Your task to perform on an android device: check out phone information Image 0: 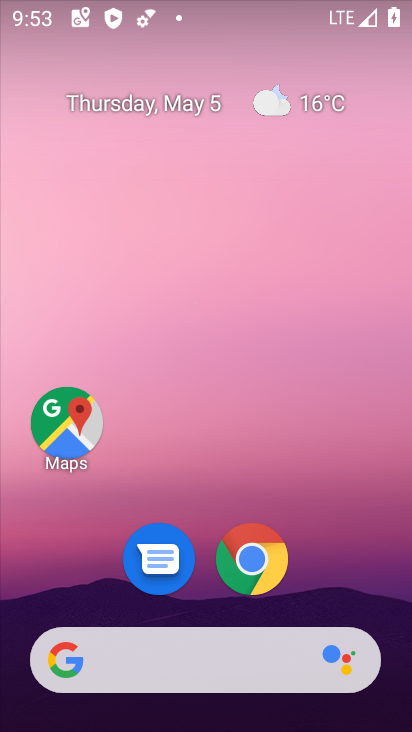
Step 0: drag from (249, 615) to (271, 170)
Your task to perform on an android device: check out phone information Image 1: 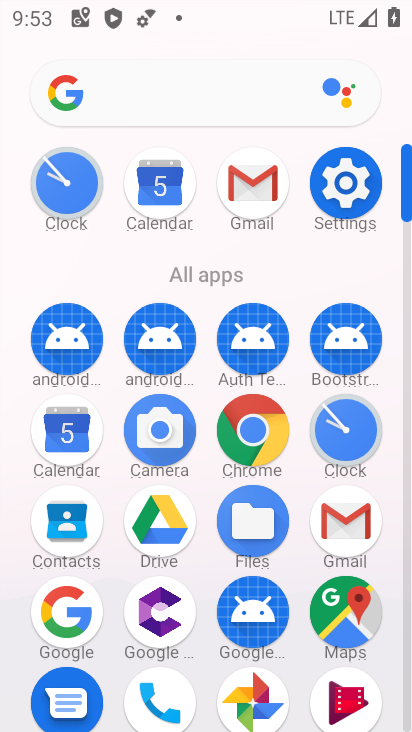
Step 1: click (341, 210)
Your task to perform on an android device: check out phone information Image 2: 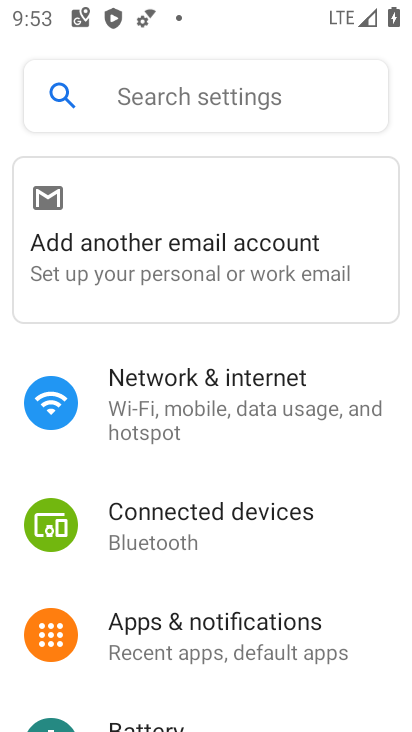
Step 2: drag from (231, 626) to (263, 163)
Your task to perform on an android device: check out phone information Image 3: 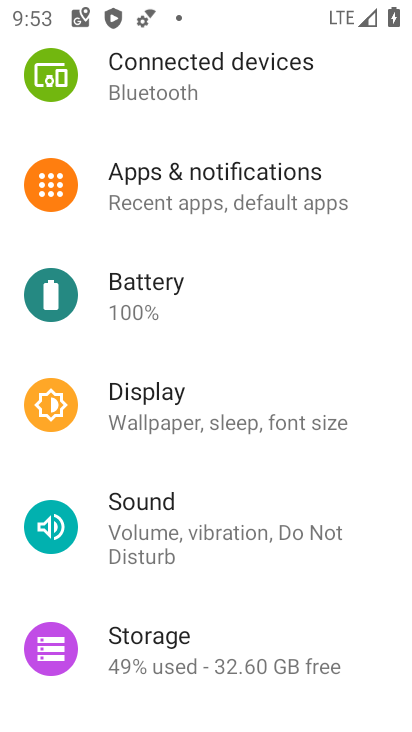
Step 3: drag from (178, 579) to (247, 101)
Your task to perform on an android device: check out phone information Image 4: 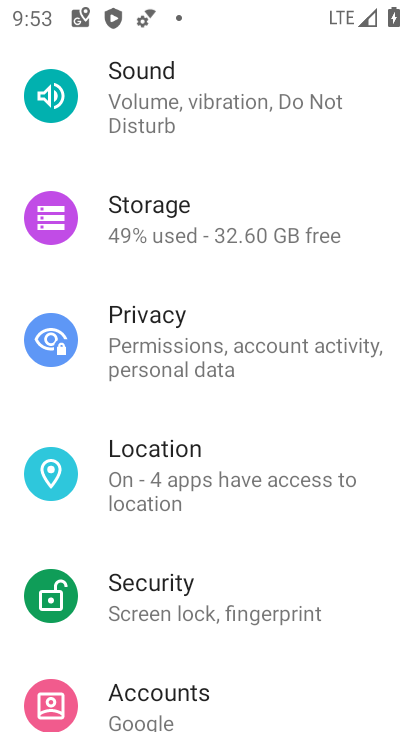
Step 4: drag from (209, 574) to (284, 149)
Your task to perform on an android device: check out phone information Image 5: 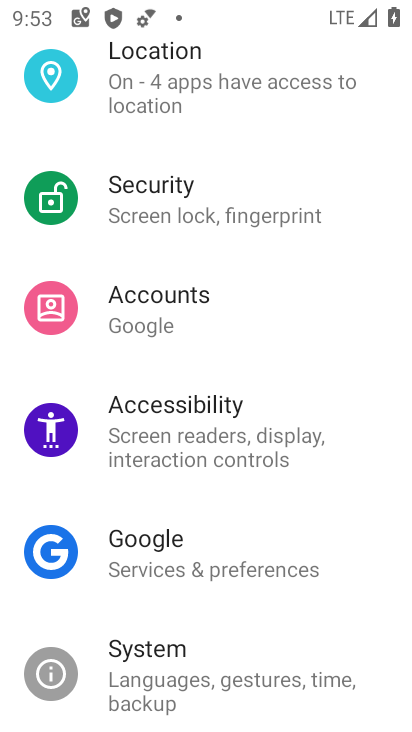
Step 5: drag from (239, 608) to (283, 212)
Your task to perform on an android device: check out phone information Image 6: 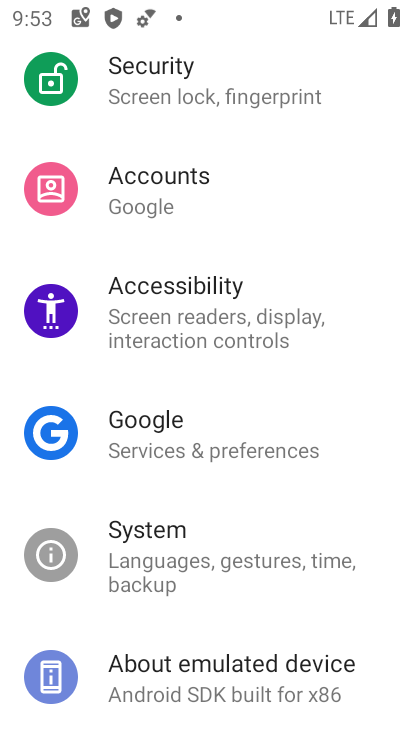
Step 6: click (229, 674)
Your task to perform on an android device: check out phone information Image 7: 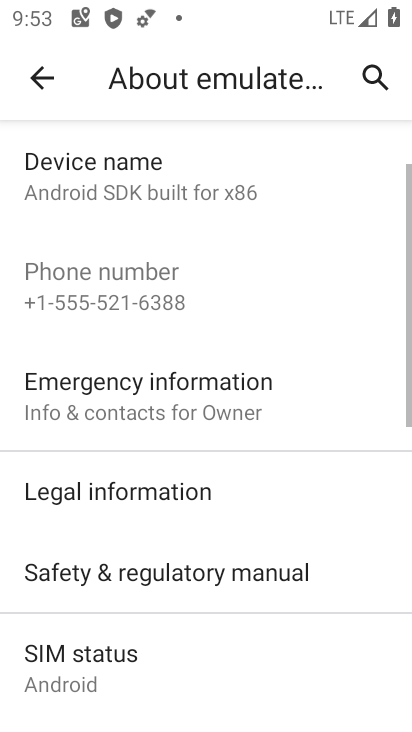
Step 7: task complete